Your task to perform on an android device: turn off javascript in the chrome app Image 0: 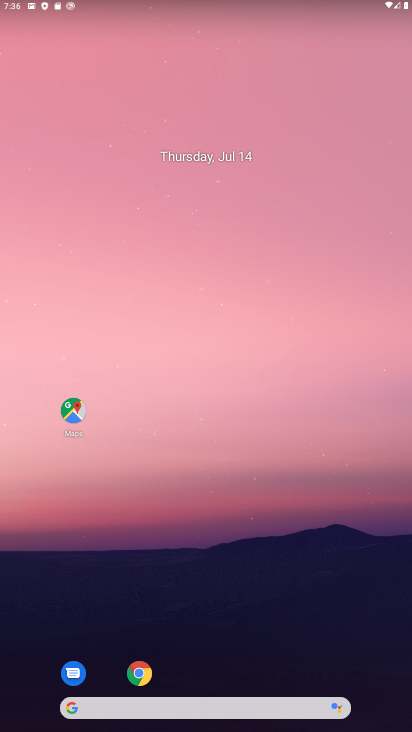
Step 0: drag from (218, 508) to (279, 260)
Your task to perform on an android device: turn off javascript in the chrome app Image 1: 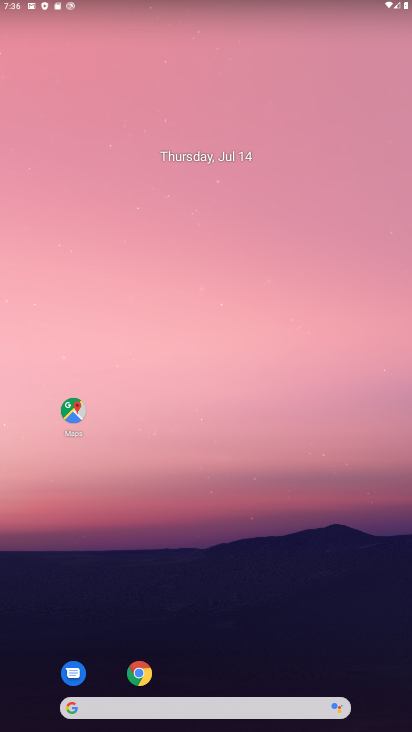
Step 1: drag from (206, 607) to (189, 280)
Your task to perform on an android device: turn off javascript in the chrome app Image 2: 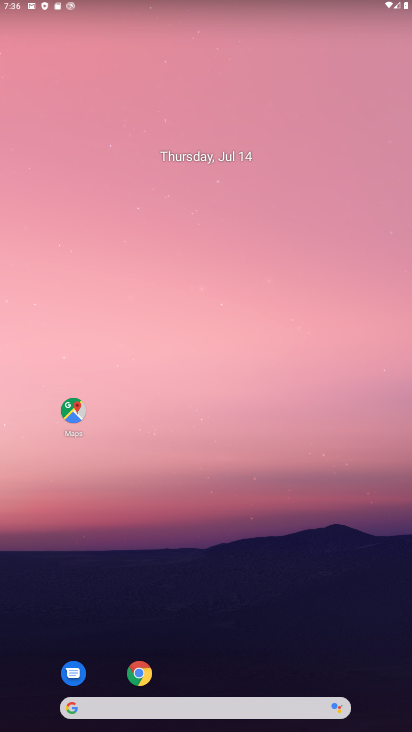
Step 2: drag from (223, 658) to (217, 232)
Your task to perform on an android device: turn off javascript in the chrome app Image 3: 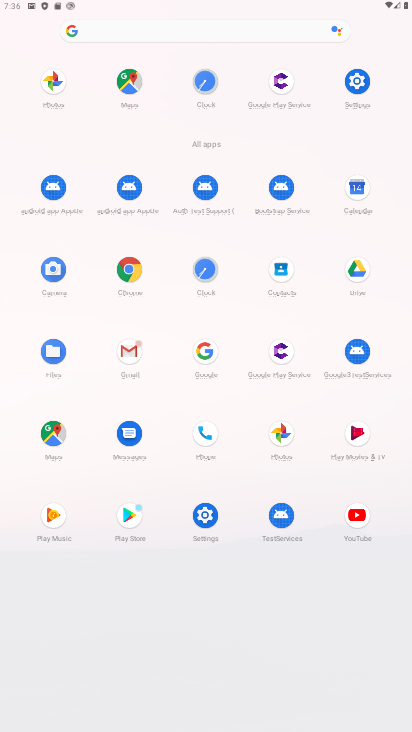
Step 3: click (135, 274)
Your task to perform on an android device: turn off javascript in the chrome app Image 4: 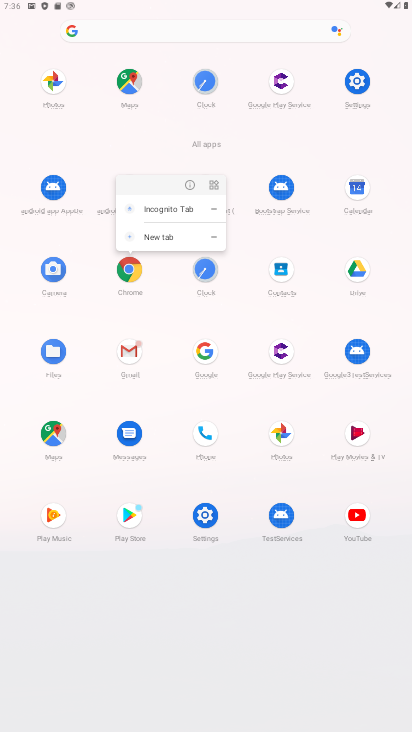
Step 4: click (193, 183)
Your task to perform on an android device: turn off javascript in the chrome app Image 5: 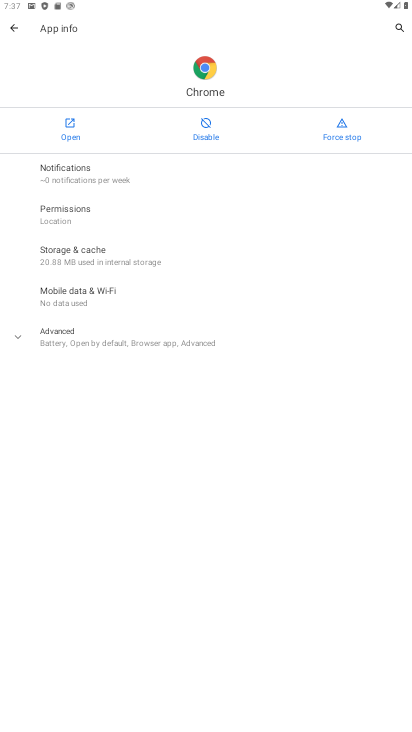
Step 5: click (65, 115)
Your task to perform on an android device: turn off javascript in the chrome app Image 6: 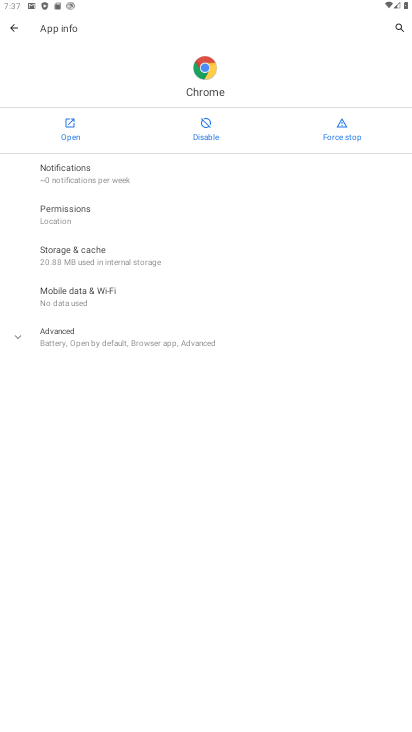
Step 6: click (74, 117)
Your task to perform on an android device: turn off javascript in the chrome app Image 7: 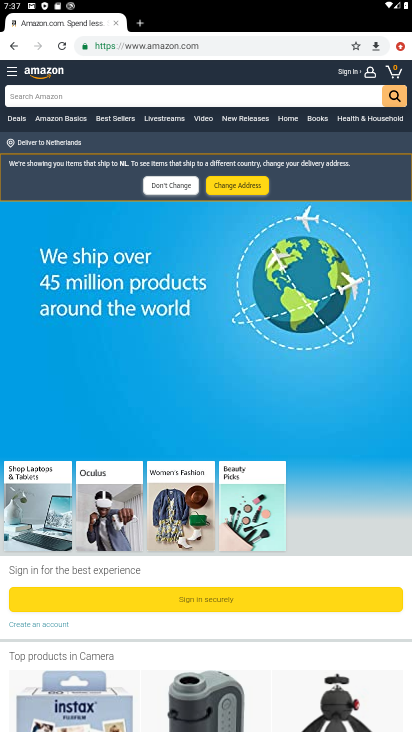
Step 7: drag from (183, 554) to (204, 225)
Your task to perform on an android device: turn off javascript in the chrome app Image 8: 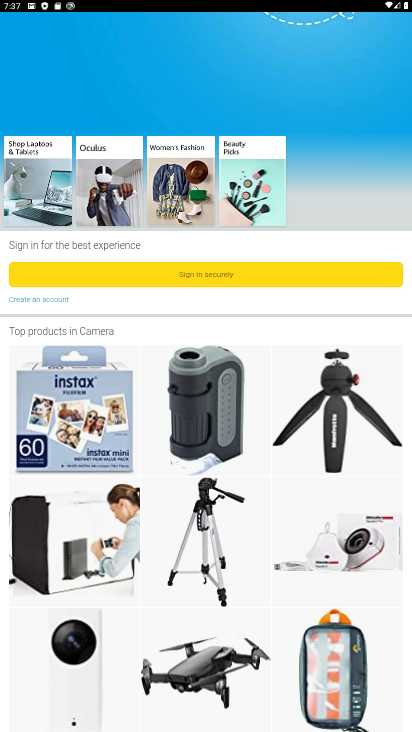
Step 8: drag from (338, 147) to (330, 598)
Your task to perform on an android device: turn off javascript in the chrome app Image 9: 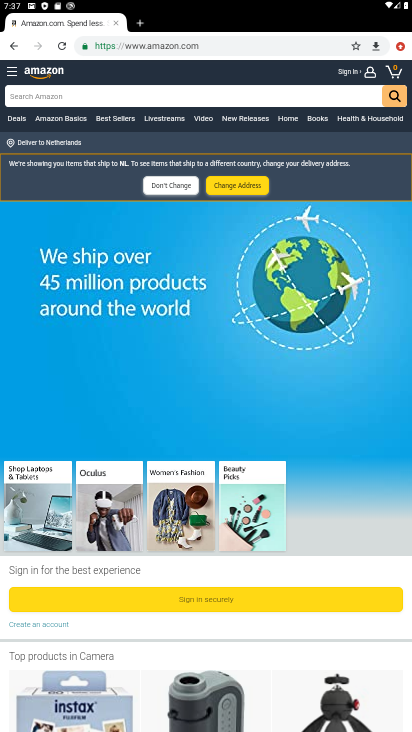
Step 9: click (401, 48)
Your task to perform on an android device: turn off javascript in the chrome app Image 10: 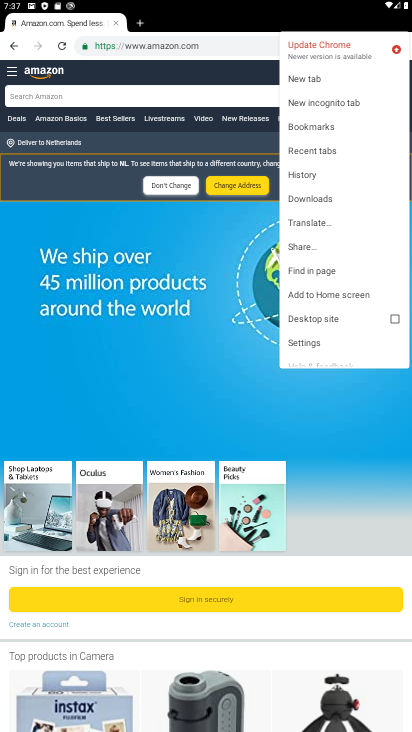
Step 10: click (315, 338)
Your task to perform on an android device: turn off javascript in the chrome app Image 11: 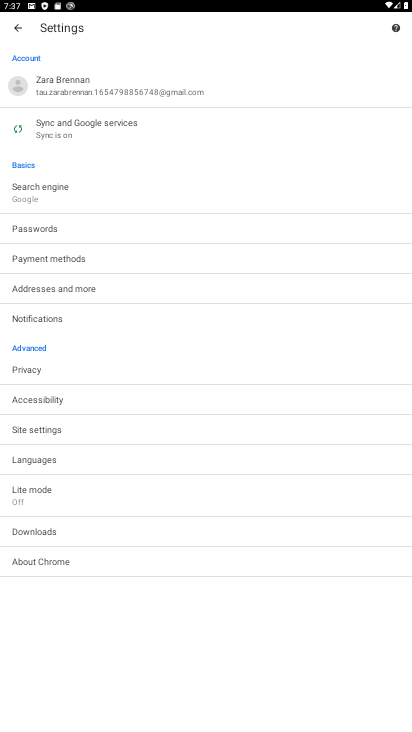
Step 11: click (78, 422)
Your task to perform on an android device: turn off javascript in the chrome app Image 12: 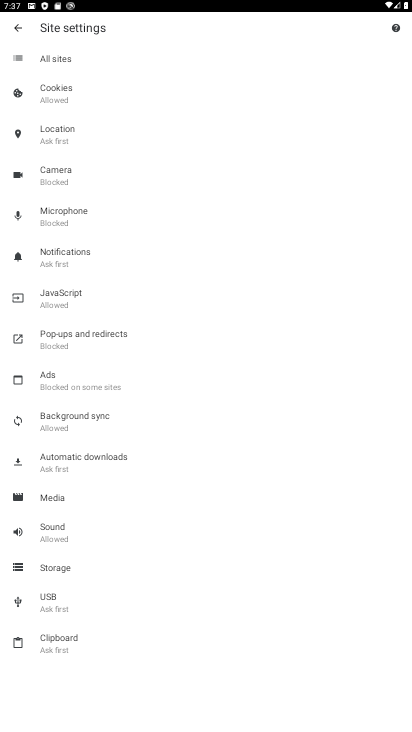
Step 12: click (84, 306)
Your task to perform on an android device: turn off javascript in the chrome app Image 13: 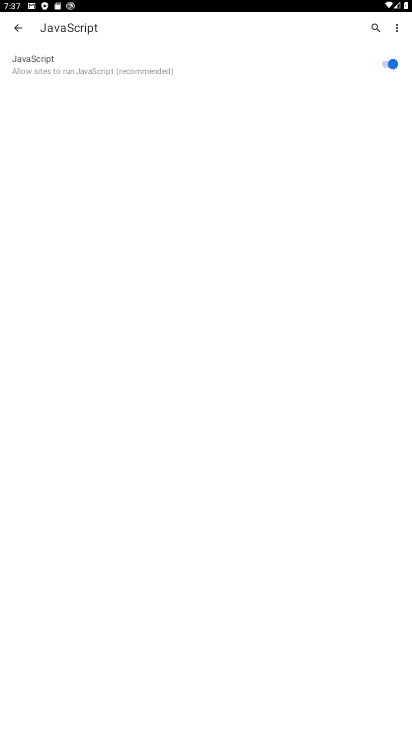
Step 13: click (399, 70)
Your task to perform on an android device: turn off javascript in the chrome app Image 14: 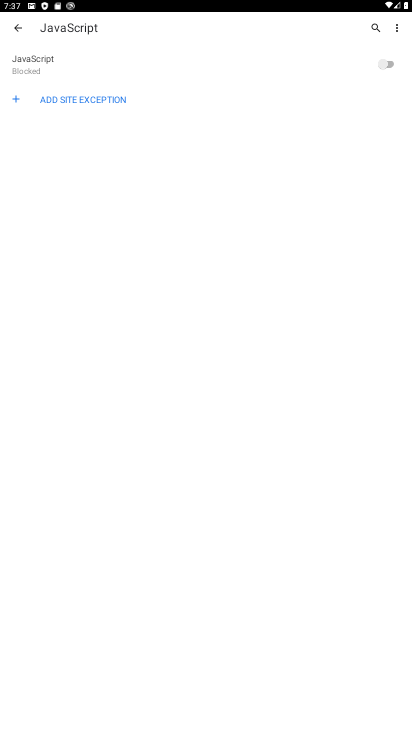
Step 14: task complete